Your task to perform on an android device: open chrome privacy settings Image 0: 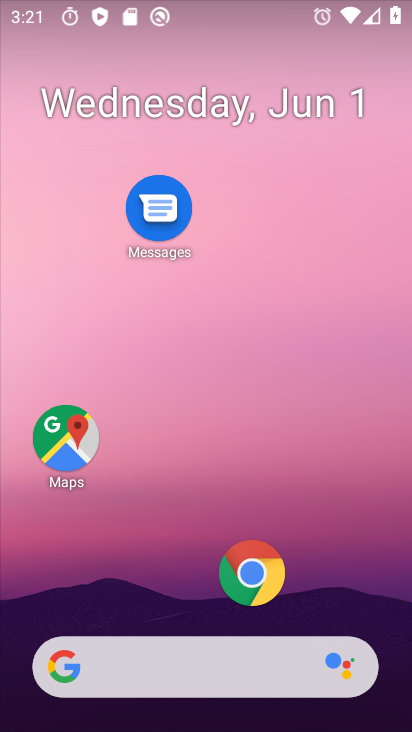
Step 0: click (246, 562)
Your task to perform on an android device: open chrome privacy settings Image 1: 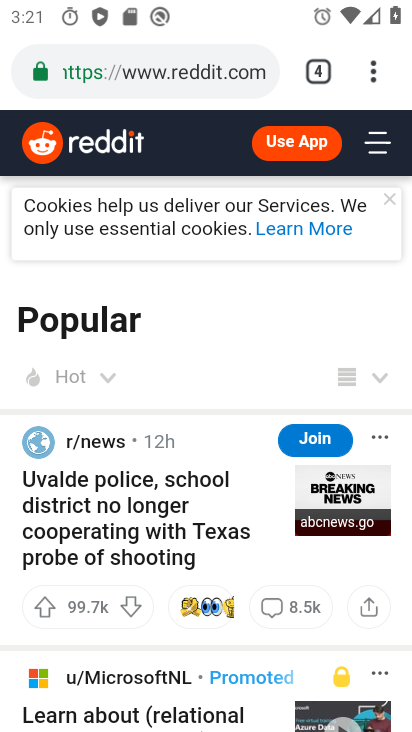
Step 1: drag from (368, 70) to (180, 572)
Your task to perform on an android device: open chrome privacy settings Image 2: 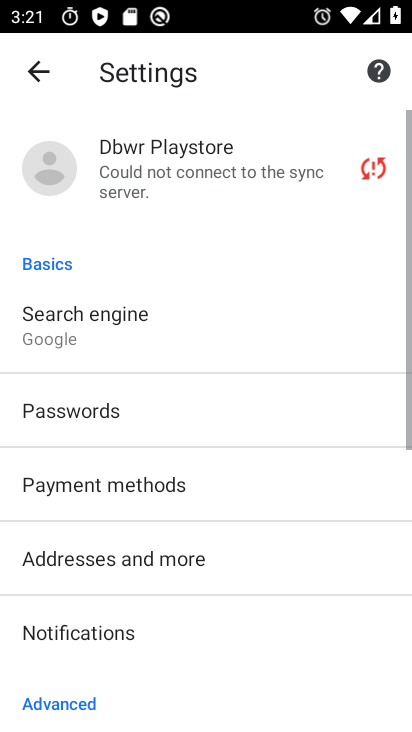
Step 2: drag from (173, 586) to (168, 322)
Your task to perform on an android device: open chrome privacy settings Image 3: 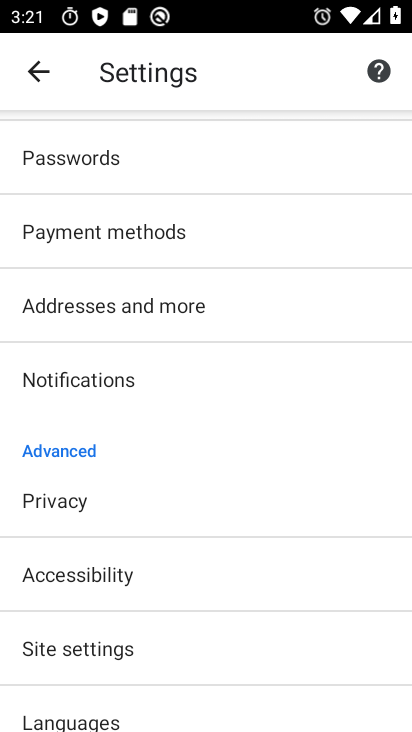
Step 3: click (90, 486)
Your task to perform on an android device: open chrome privacy settings Image 4: 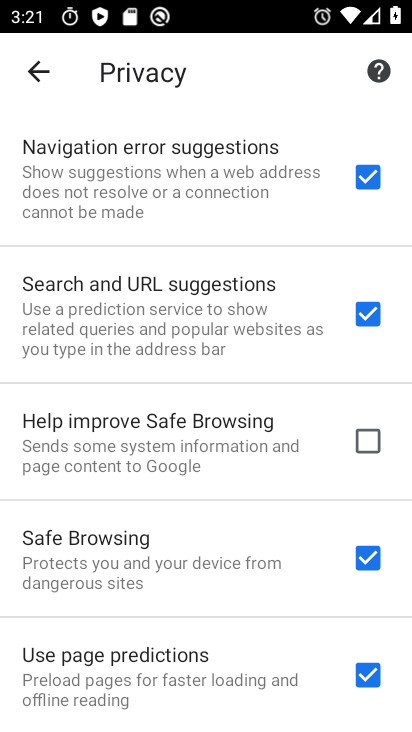
Step 4: task complete